Your task to perform on an android device: set the stopwatch Image 0: 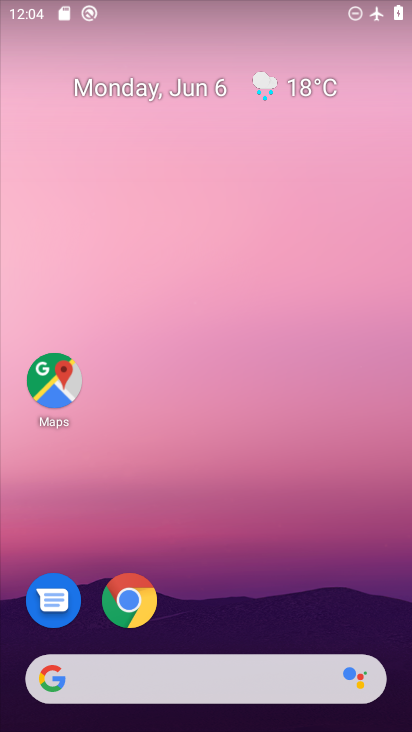
Step 0: drag from (225, 640) to (194, 225)
Your task to perform on an android device: set the stopwatch Image 1: 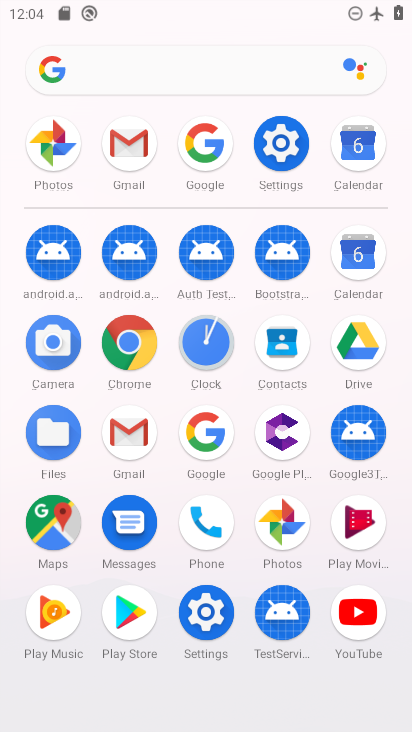
Step 1: click (199, 359)
Your task to perform on an android device: set the stopwatch Image 2: 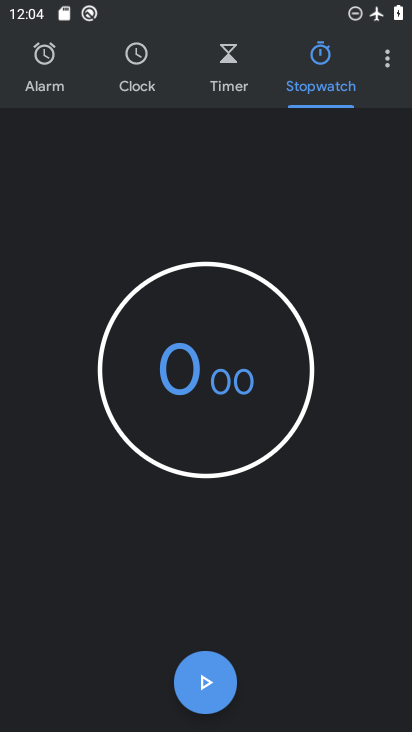
Step 2: click (211, 671)
Your task to perform on an android device: set the stopwatch Image 3: 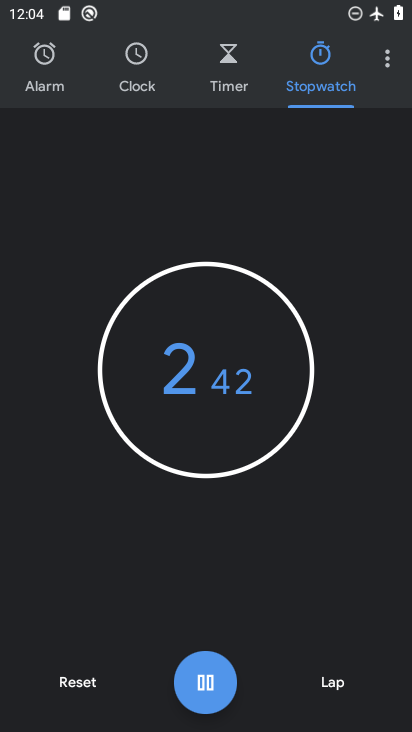
Step 3: task complete